Your task to perform on an android device: set default search engine in the chrome app Image 0: 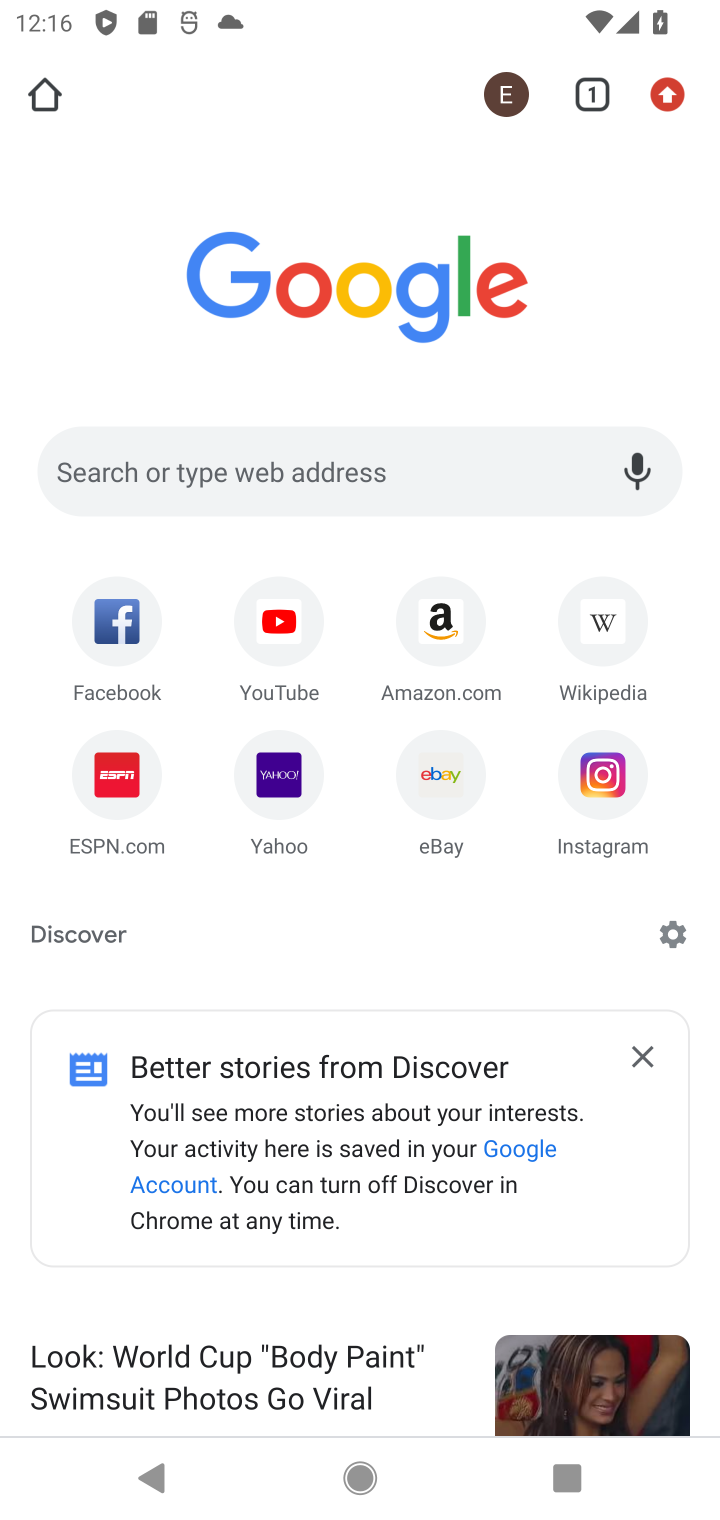
Step 0: click (662, 89)
Your task to perform on an android device: set default search engine in the chrome app Image 1: 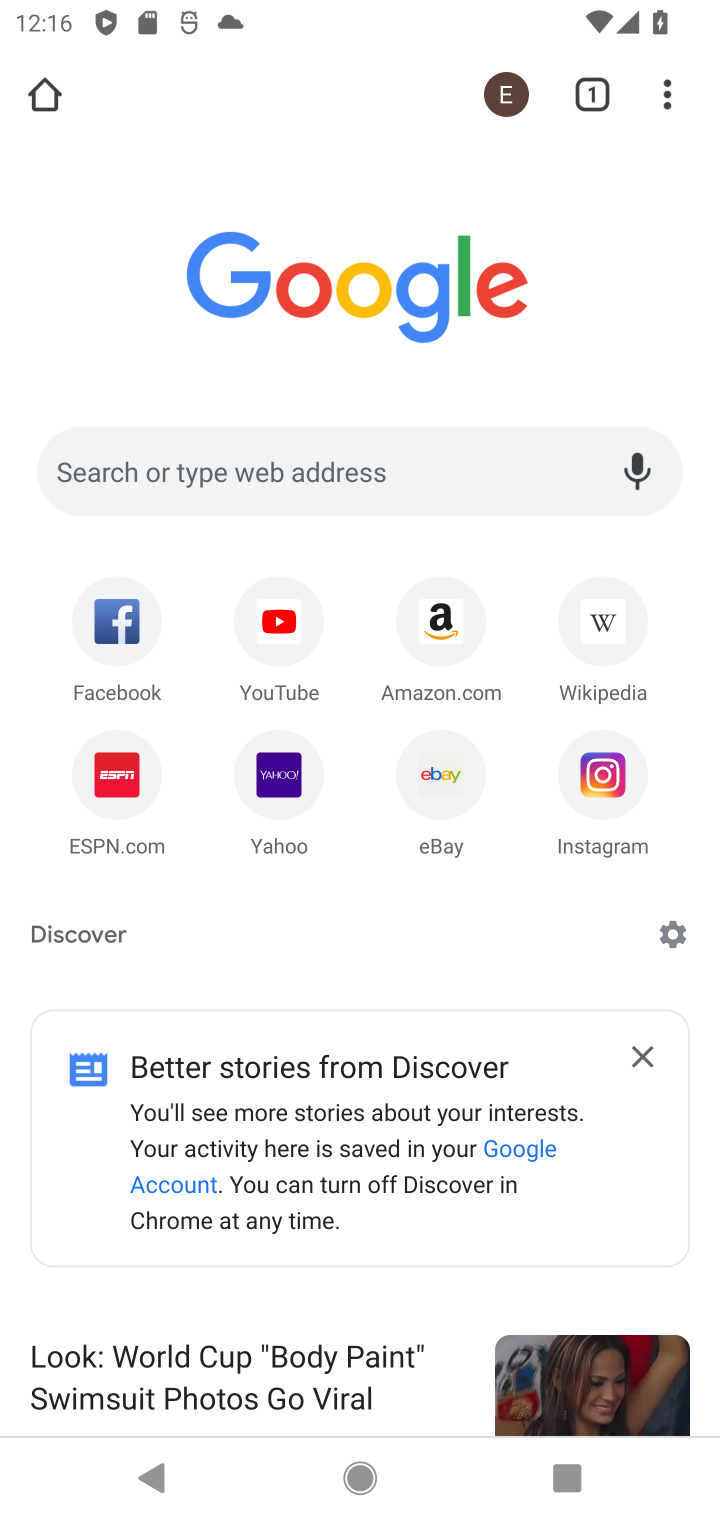
Step 1: click (666, 90)
Your task to perform on an android device: set default search engine in the chrome app Image 2: 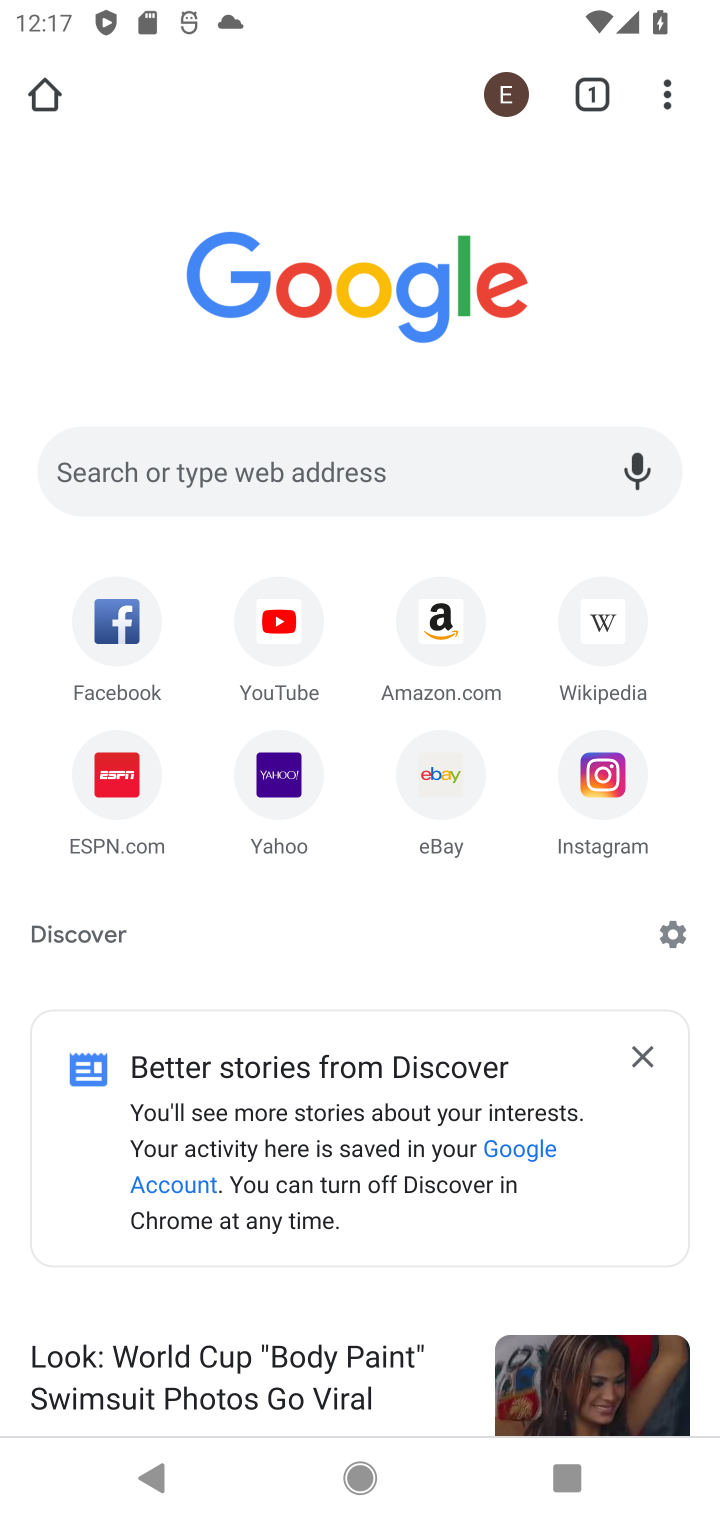
Step 2: click (663, 105)
Your task to perform on an android device: set default search engine in the chrome app Image 3: 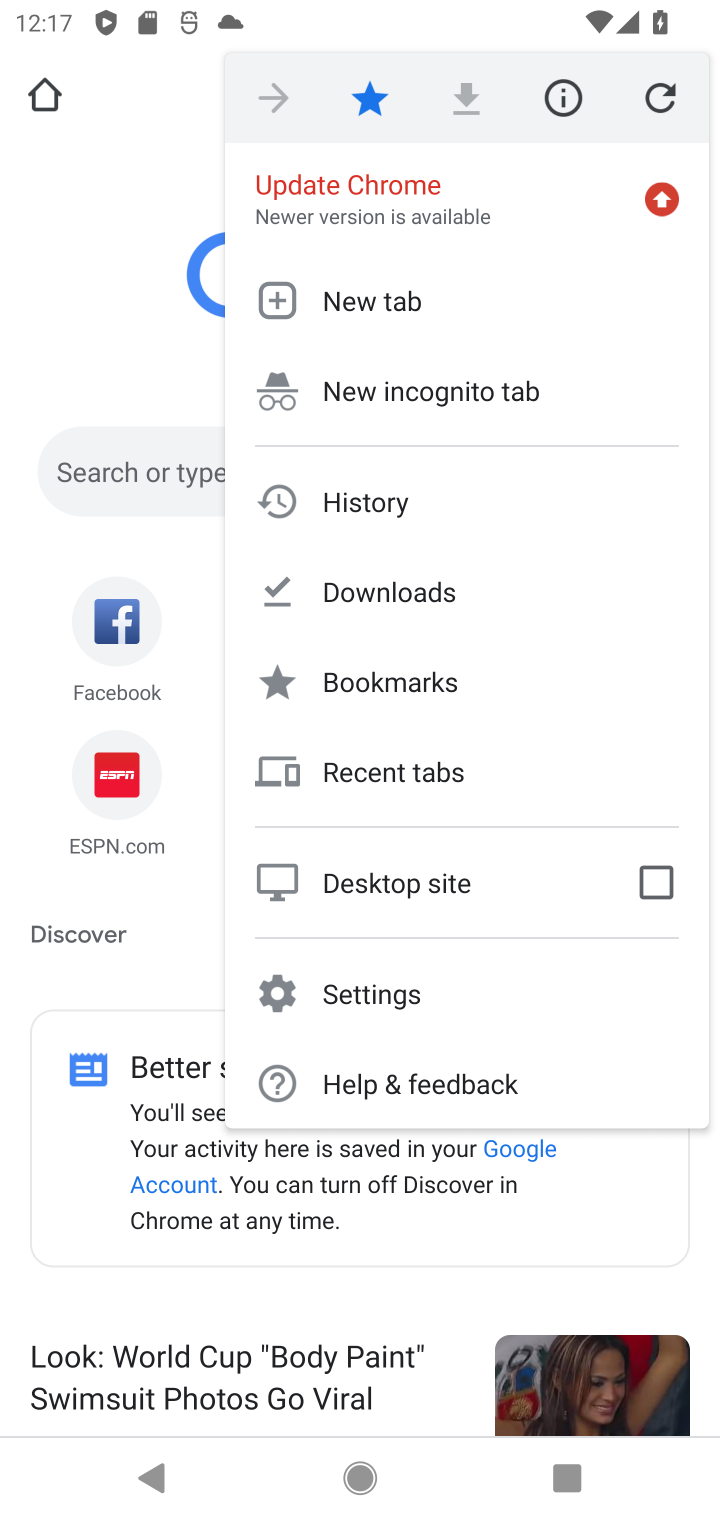
Step 3: click (409, 986)
Your task to perform on an android device: set default search engine in the chrome app Image 4: 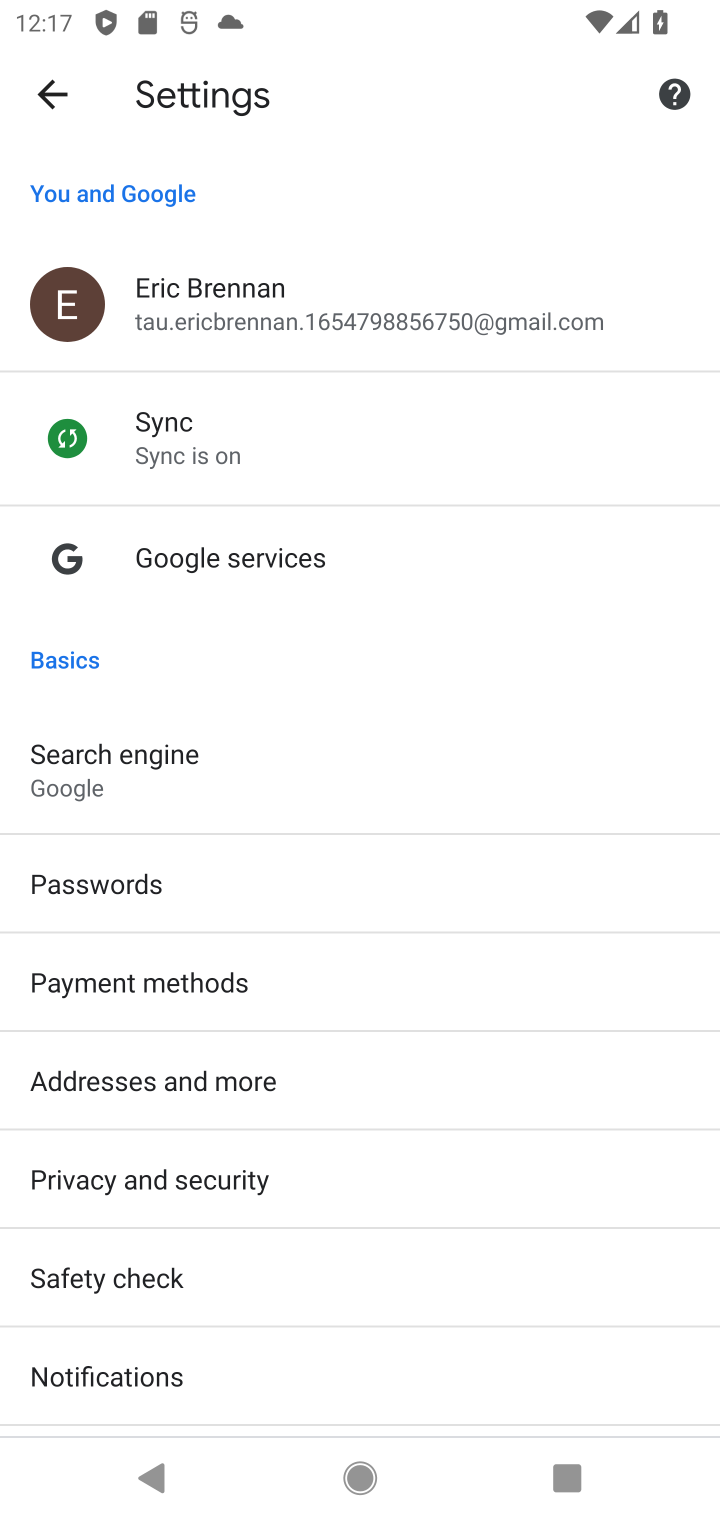
Step 4: click (100, 782)
Your task to perform on an android device: set default search engine in the chrome app Image 5: 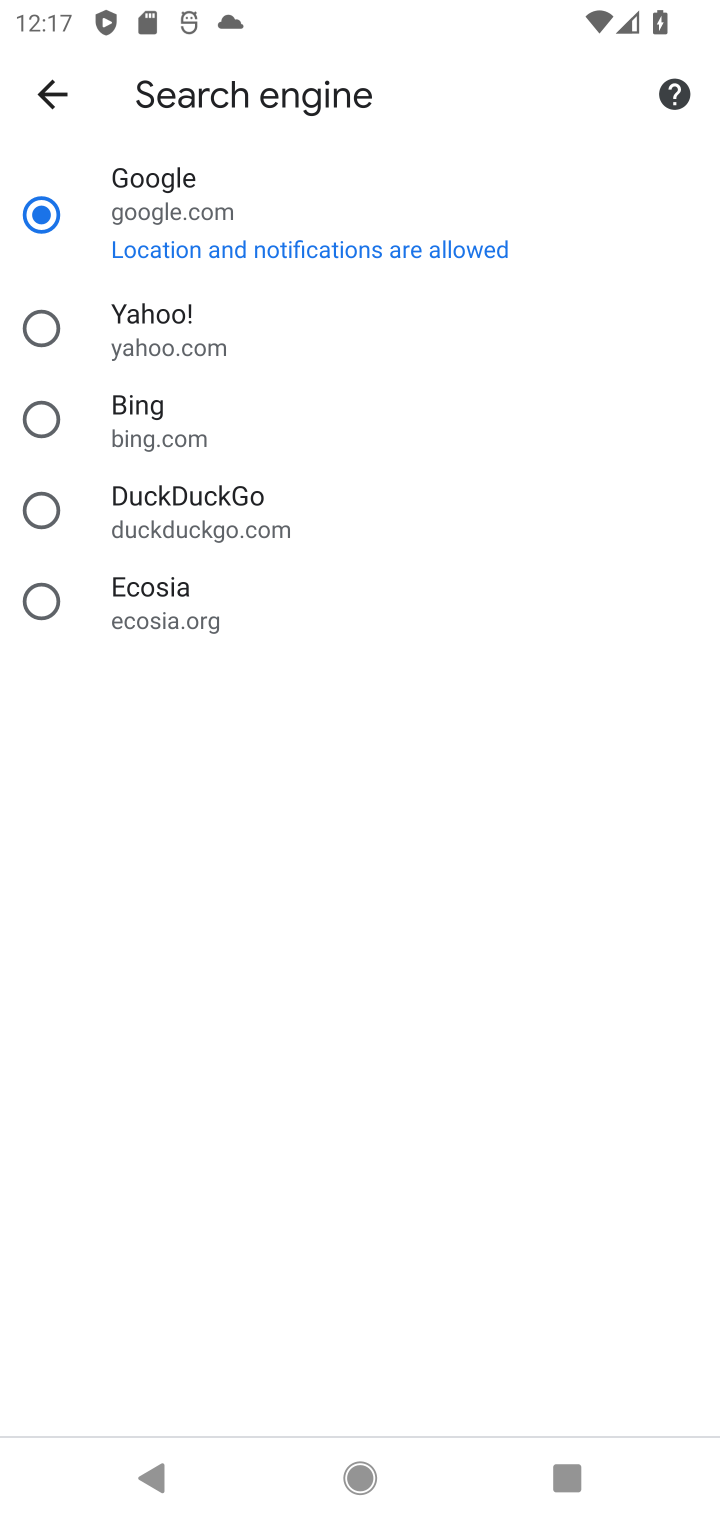
Step 5: task complete